Your task to perform on an android device: open sync settings in chrome Image 0: 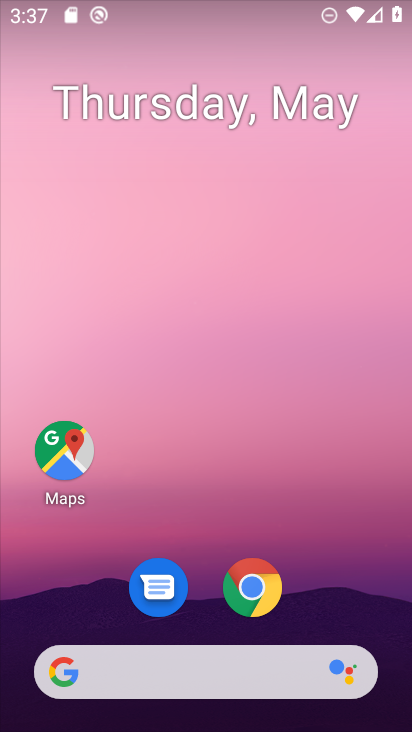
Step 0: drag from (353, 577) to (360, 238)
Your task to perform on an android device: open sync settings in chrome Image 1: 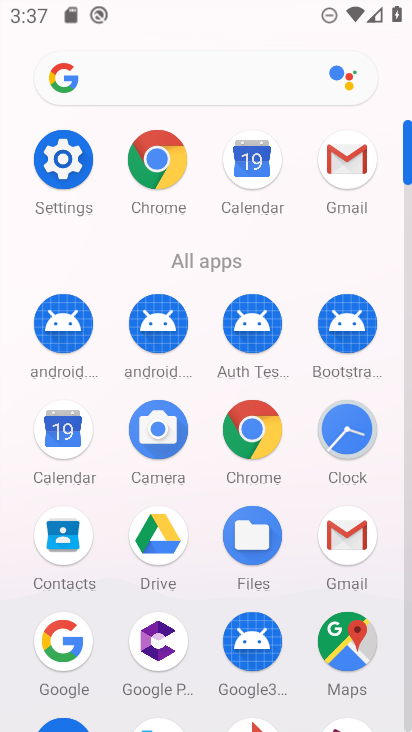
Step 1: click (252, 442)
Your task to perform on an android device: open sync settings in chrome Image 2: 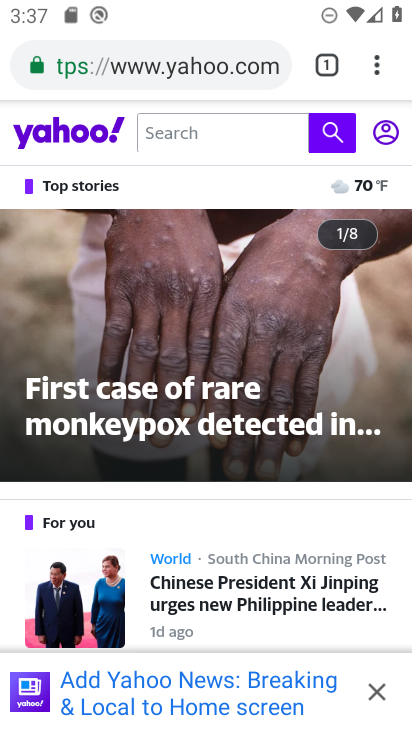
Step 2: click (378, 65)
Your task to perform on an android device: open sync settings in chrome Image 3: 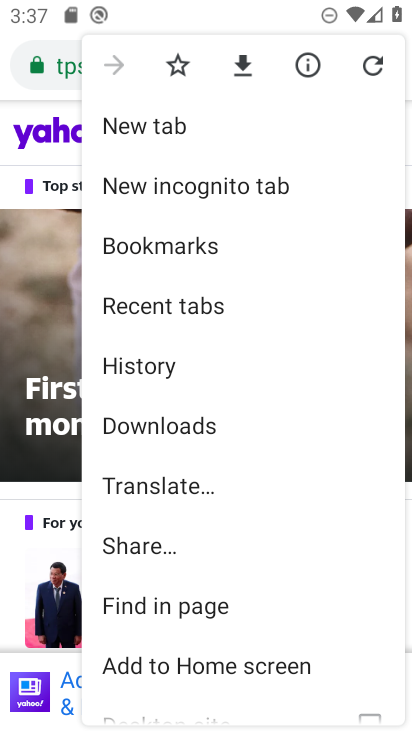
Step 3: drag from (320, 533) to (316, 418)
Your task to perform on an android device: open sync settings in chrome Image 4: 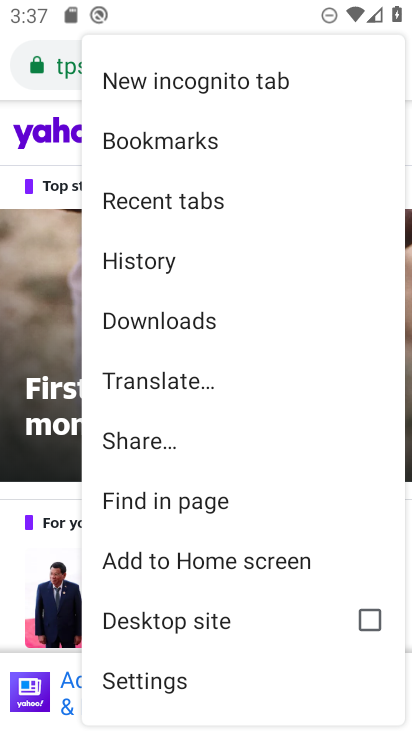
Step 4: drag from (287, 635) to (288, 461)
Your task to perform on an android device: open sync settings in chrome Image 5: 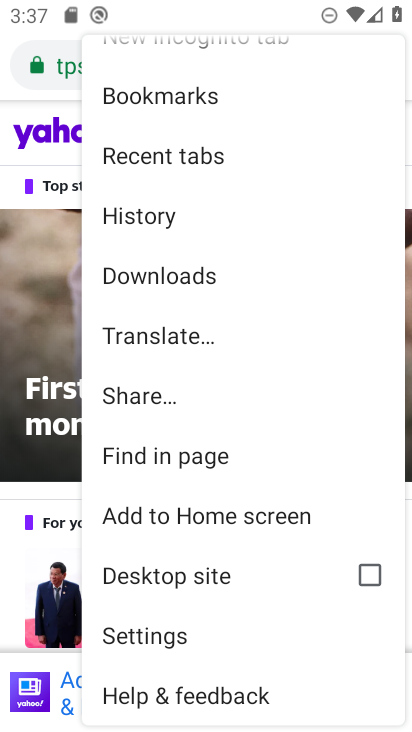
Step 5: click (205, 635)
Your task to perform on an android device: open sync settings in chrome Image 6: 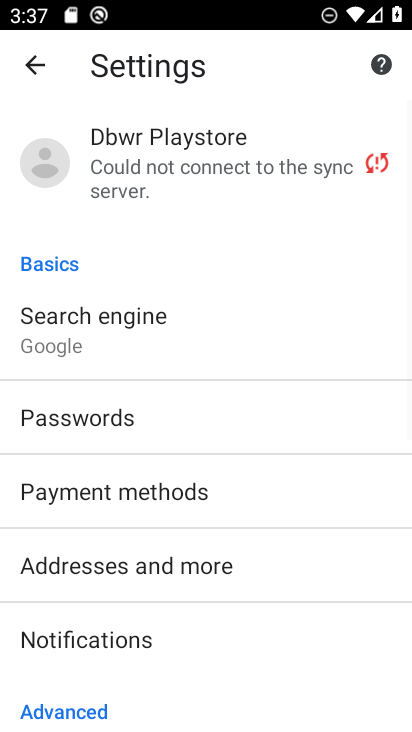
Step 6: drag from (310, 639) to (335, 499)
Your task to perform on an android device: open sync settings in chrome Image 7: 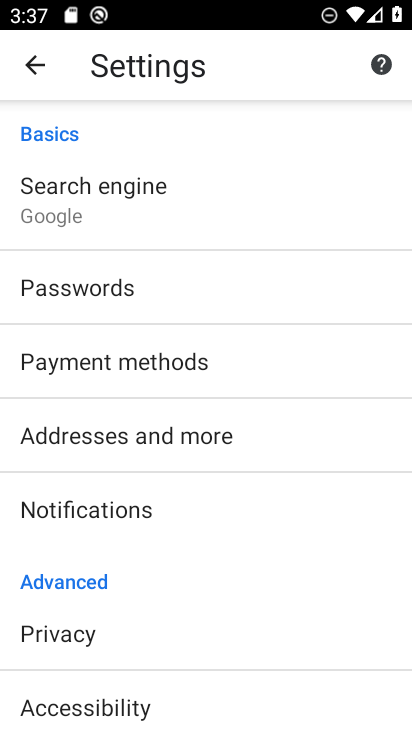
Step 7: drag from (317, 645) to (321, 493)
Your task to perform on an android device: open sync settings in chrome Image 8: 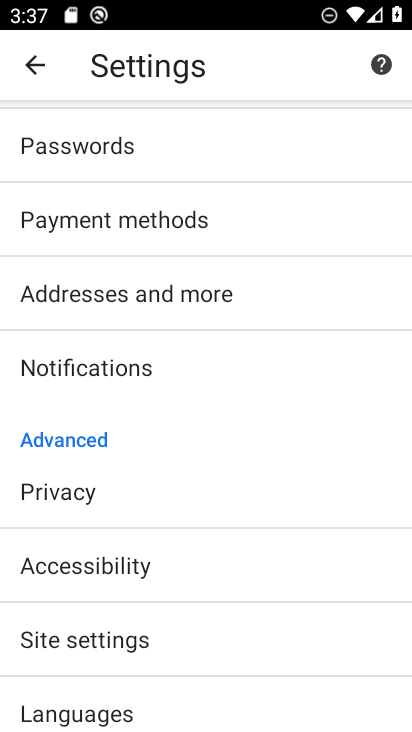
Step 8: drag from (316, 625) to (316, 527)
Your task to perform on an android device: open sync settings in chrome Image 9: 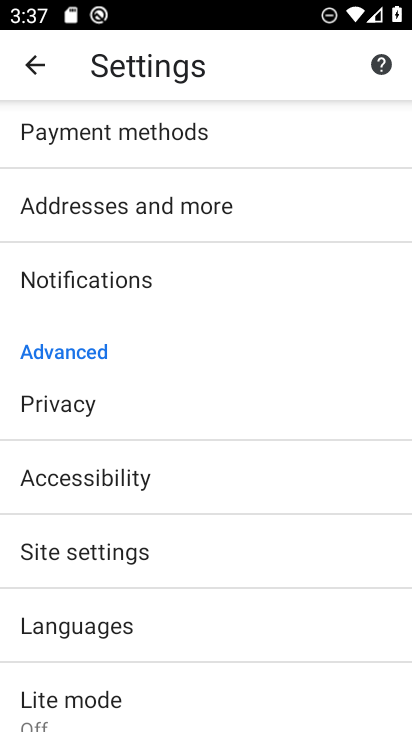
Step 9: drag from (309, 658) to (312, 578)
Your task to perform on an android device: open sync settings in chrome Image 10: 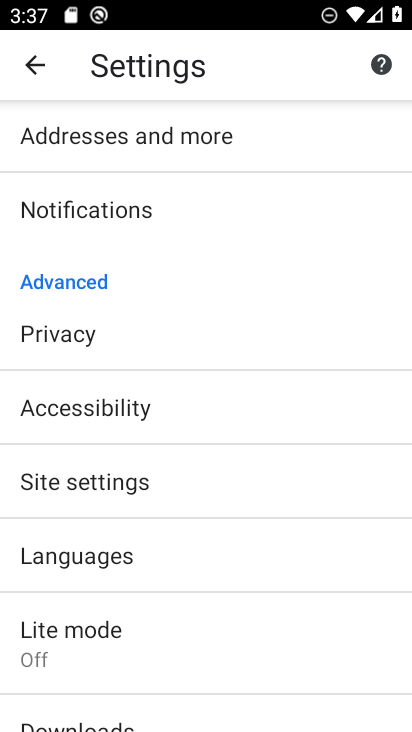
Step 10: drag from (320, 665) to (315, 583)
Your task to perform on an android device: open sync settings in chrome Image 11: 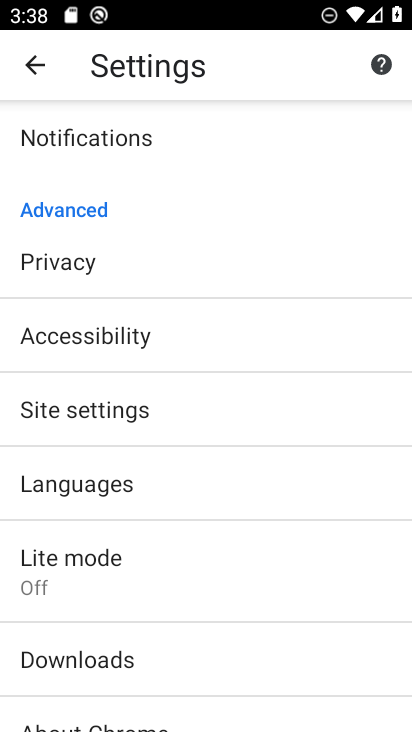
Step 11: drag from (329, 653) to (326, 546)
Your task to perform on an android device: open sync settings in chrome Image 12: 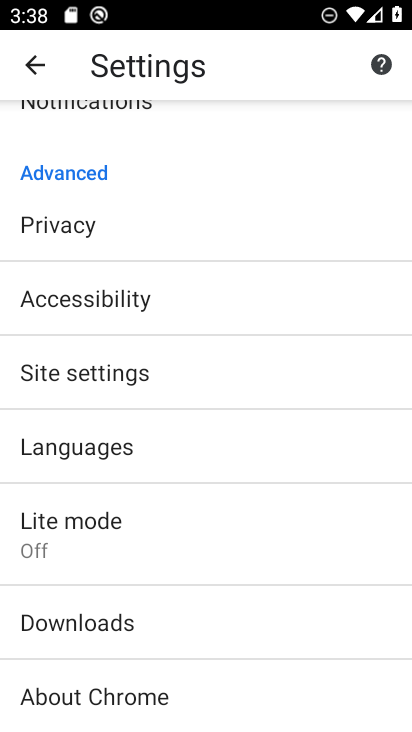
Step 12: drag from (297, 672) to (292, 563)
Your task to perform on an android device: open sync settings in chrome Image 13: 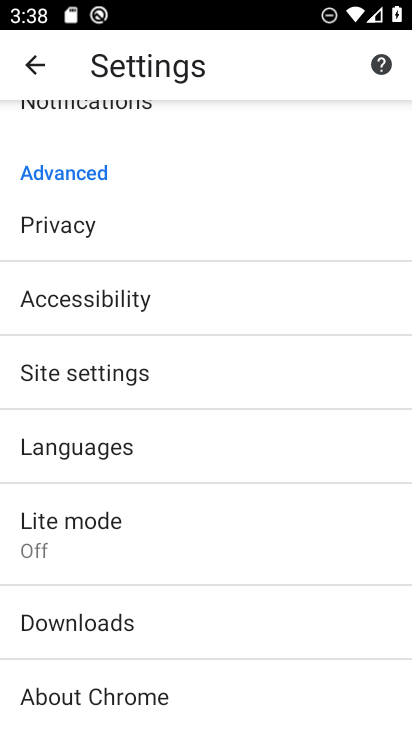
Step 13: drag from (312, 387) to (301, 500)
Your task to perform on an android device: open sync settings in chrome Image 14: 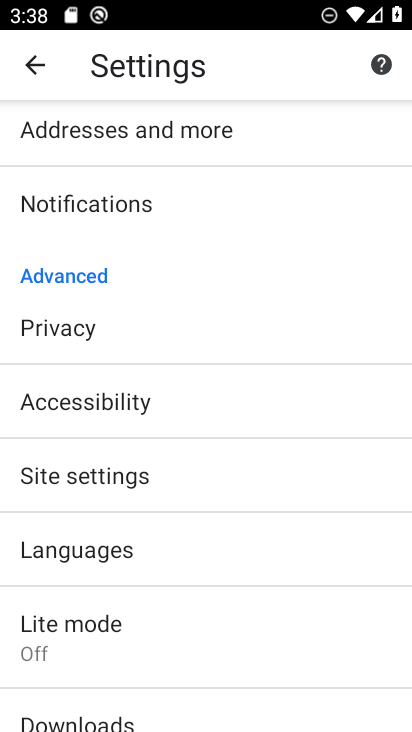
Step 14: click (281, 467)
Your task to perform on an android device: open sync settings in chrome Image 15: 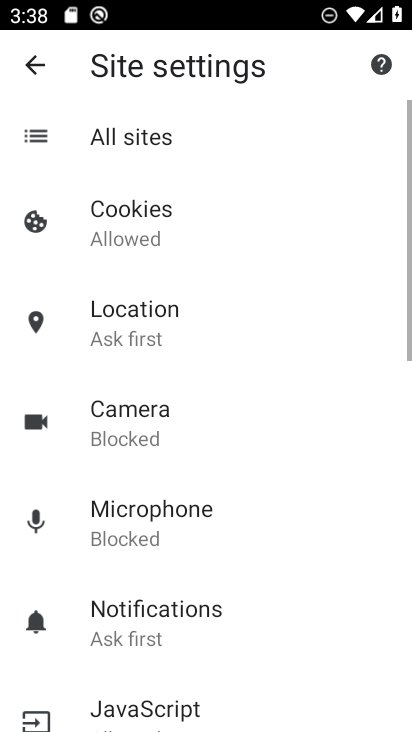
Step 15: drag from (298, 549) to (307, 424)
Your task to perform on an android device: open sync settings in chrome Image 16: 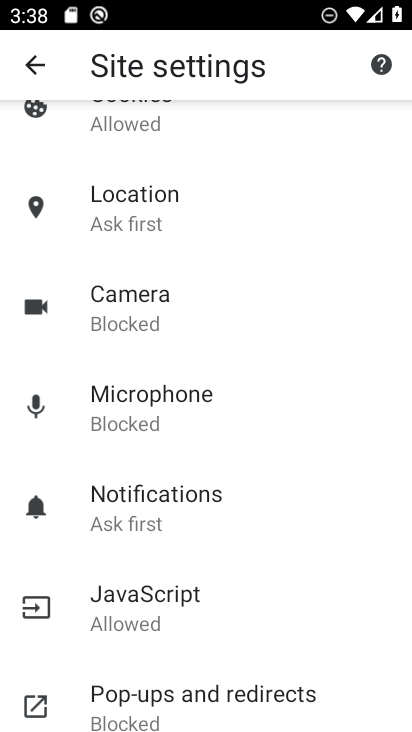
Step 16: drag from (305, 567) to (304, 458)
Your task to perform on an android device: open sync settings in chrome Image 17: 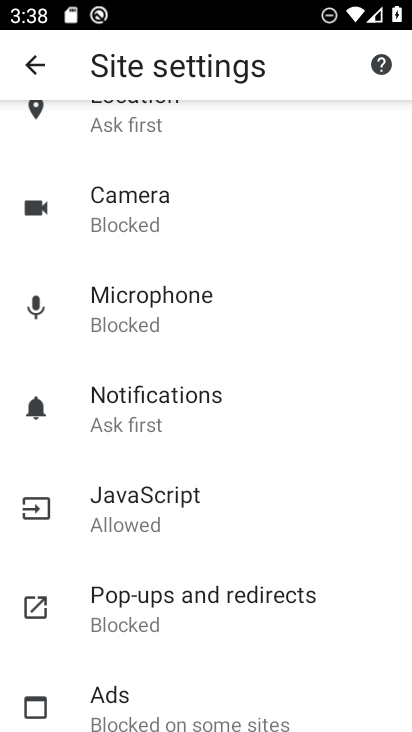
Step 17: drag from (300, 626) to (300, 501)
Your task to perform on an android device: open sync settings in chrome Image 18: 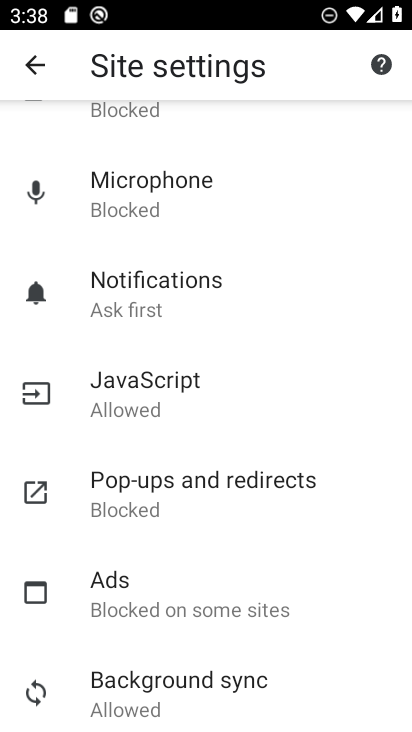
Step 18: drag from (290, 624) to (289, 493)
Your task to perform on an android device: open sync settings in chrome Image 19: 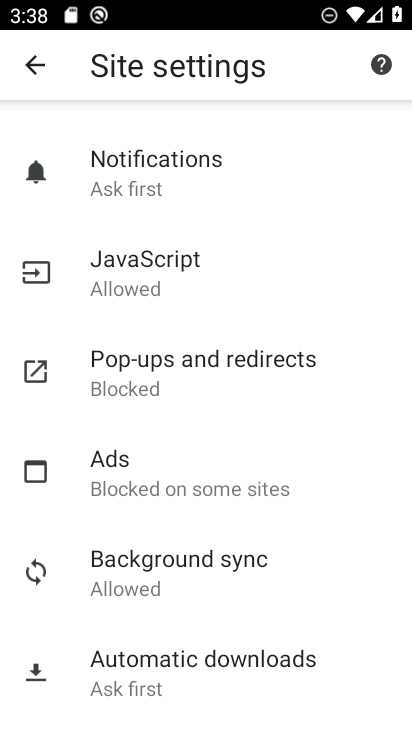
Step 19: click (220, 586)
Your task to perform on an android device: open sync settings in chrome Image 20: 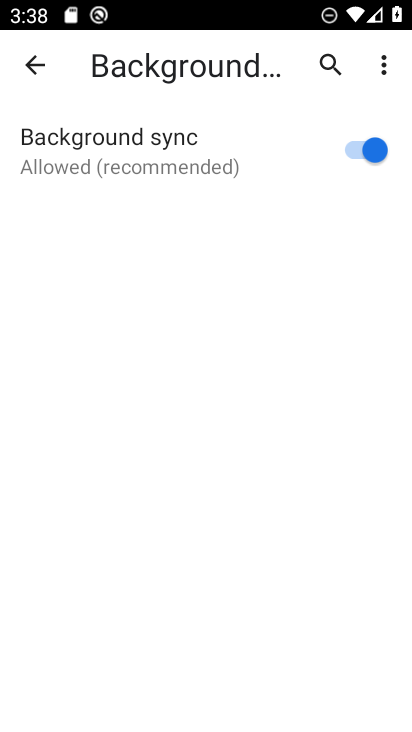
Step 20: task complete